Your task to perform on an android device: delete location history Image 0: 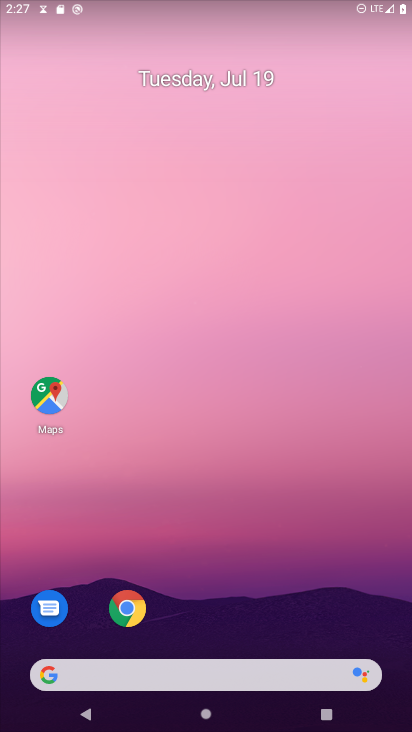
Step 0: drag from (287, 634) to (297, 4)
Your task to perform on an android device: delete location history Image 1: 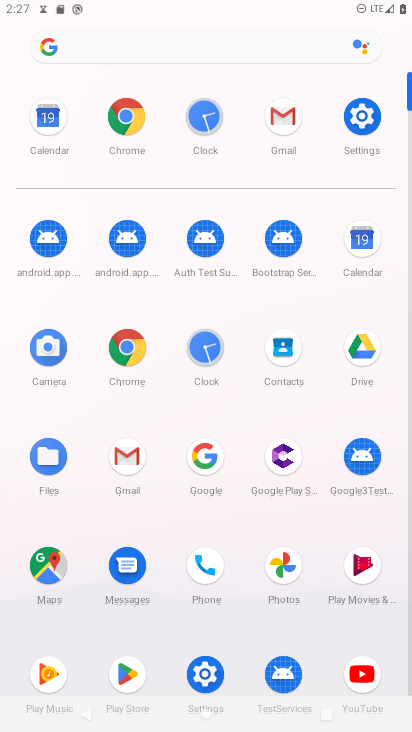
Step 1: click (42, 565)
Your task to perform on an android device: delete location history Image 2: 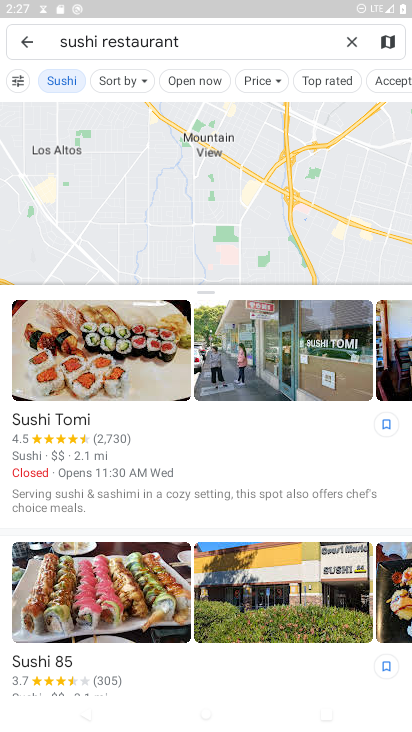
Step 2: press back button
Your task to perform on an android device: delete location history Image 3: 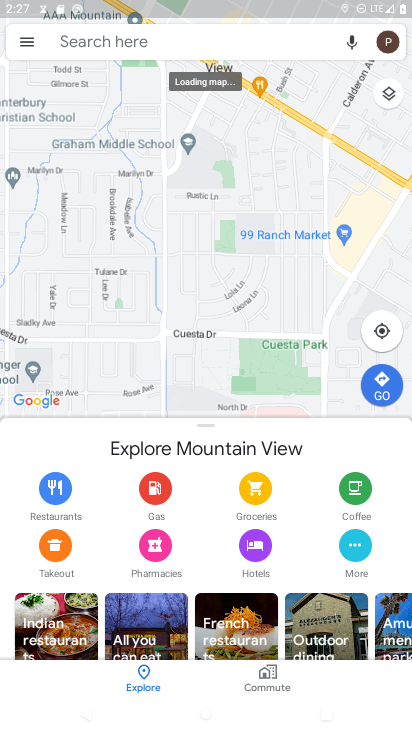
Step 3: click (30, 42)
Your task to perform on an android device: delete location history Image 4: 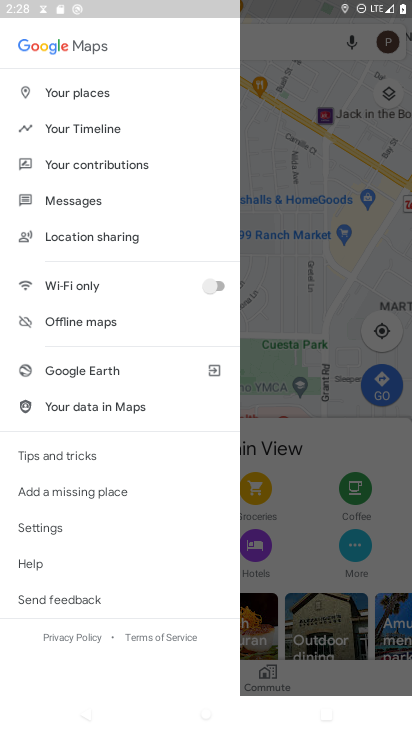
Step 4: click (97, 124)
Your task to perform on an android device: delete location history Image 5: 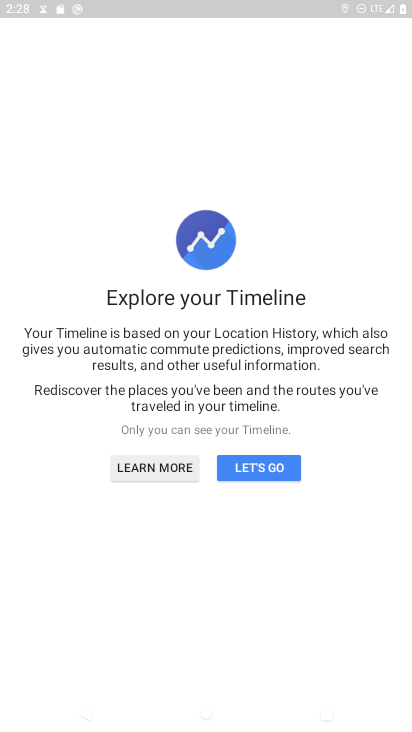
Step 5: click (283, 464)
Your task to perform on an android device: delete location history Image 6: 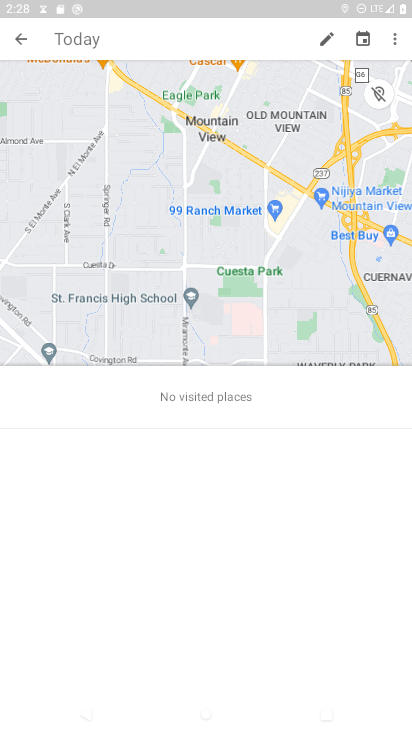
Step 6: click (390, 35)
Your task to perform on an android device: delete location history Image 7: 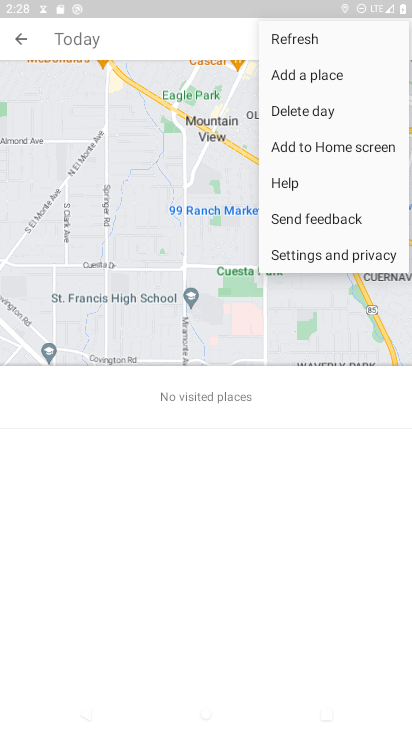
Step 7: click (319, 253)
Your task to perform on an android device: delete location history Image 8: 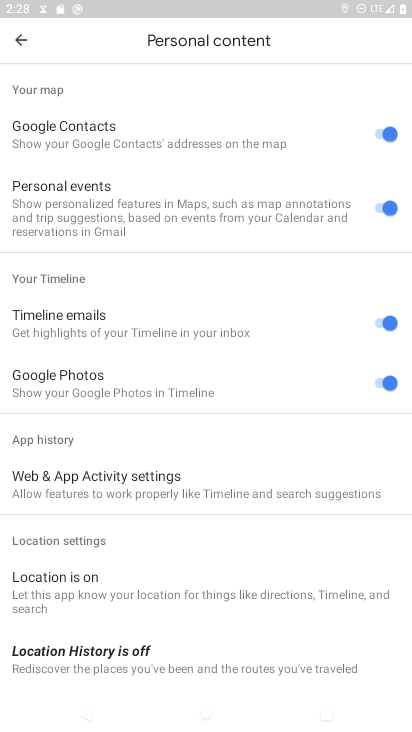
Step 8: drag from (196, 594) to (204, 175)
Your task to perform on an android device: delete location history Image 9: 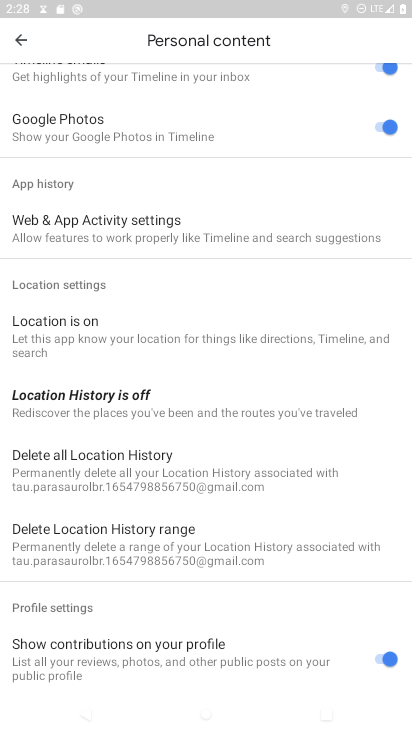
Step 9: click (130, 463)
Your task to perform on an android device: delete location history Image 10: 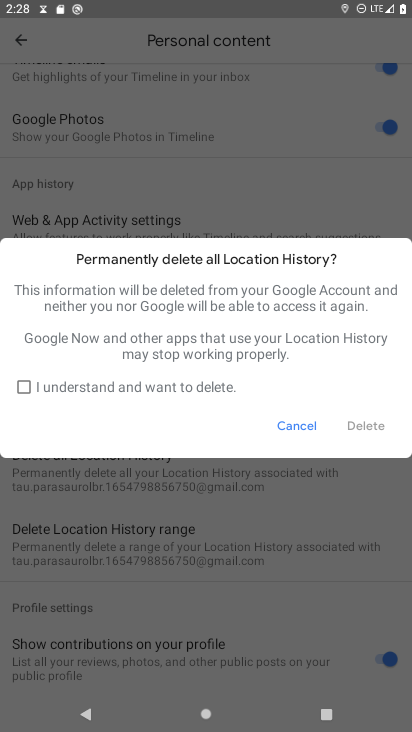
Step 10: click (14, 387)
Your task to perform on an android device: delete location history Image 11: 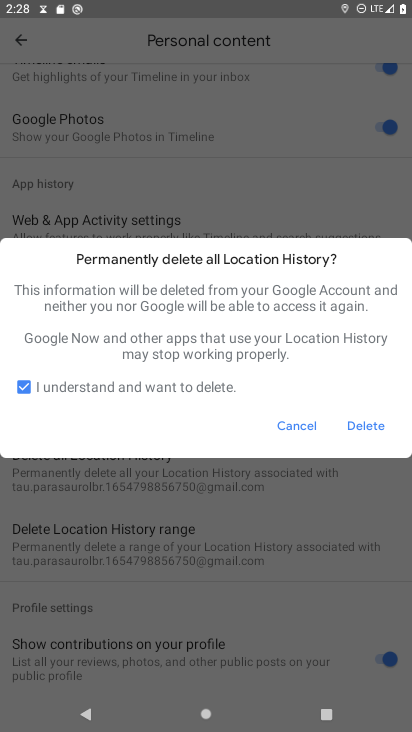
Step 11: click (369, 425)
Your task to perform on an android device: delete location history Image 12: 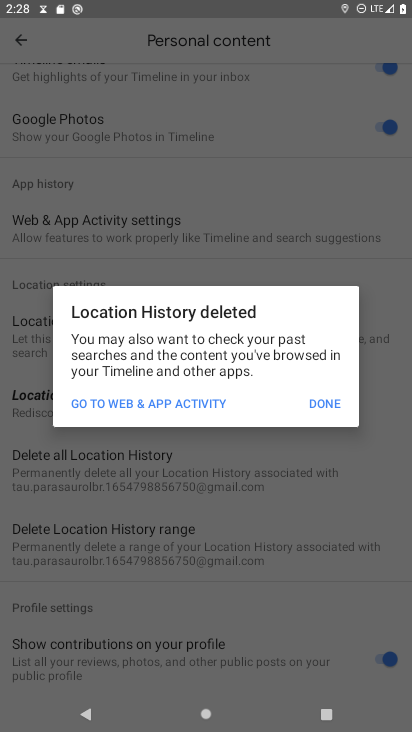
Step 12: click (339, 401)
Your task to perform on an android device: delete location history Image 13: 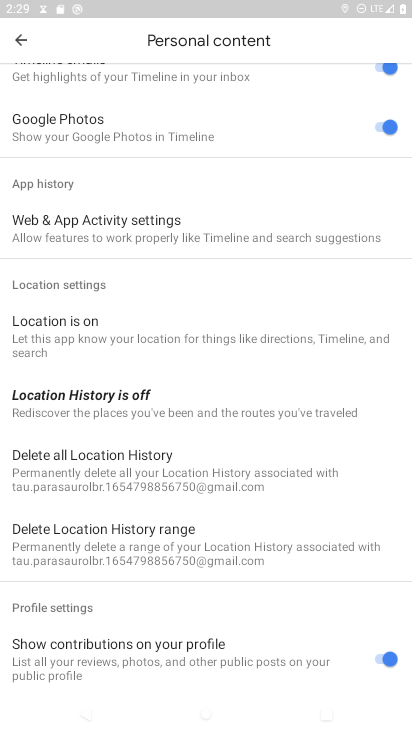
Step 13: task complete